Your task to perform on an android device: Open ESPN.com Image 0: 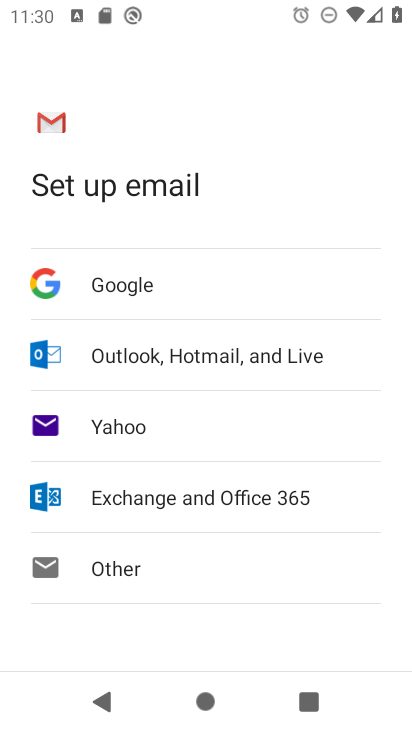
Step 0: press home button
Your task to perform on an android device: Open ESPN.com Image 1: 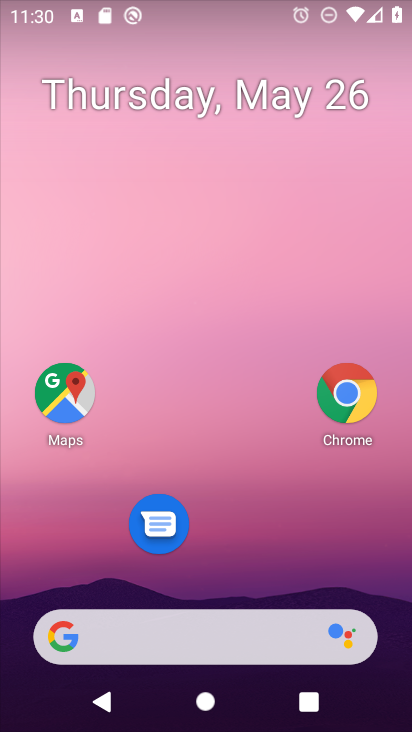
Step 1: click (258, 644)
Your task to perform on an android device: Open ESPN.com Image 2: 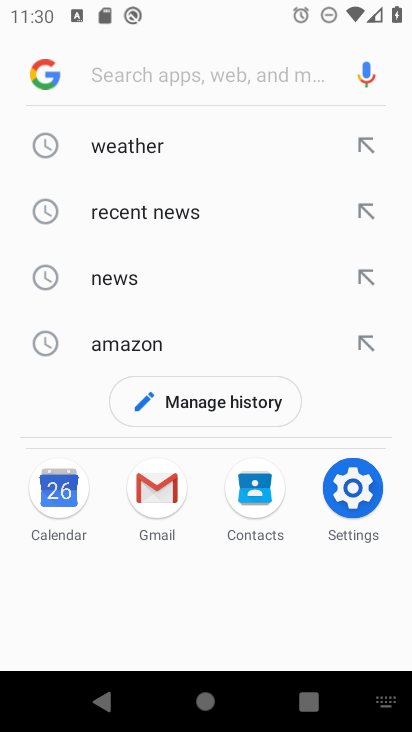
Step 2: type "espn.com"
Your task to perform on an android device: Open ESPN.com Image 3: 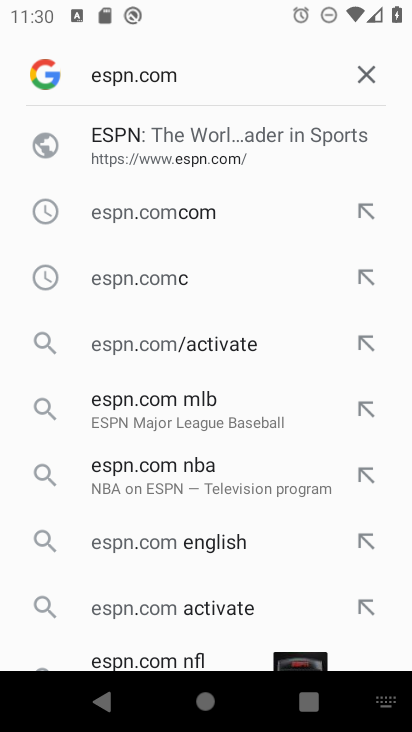
Step 3: click (175, 141)
Your task to perform on an android device: Open ESPN.com Image 4: 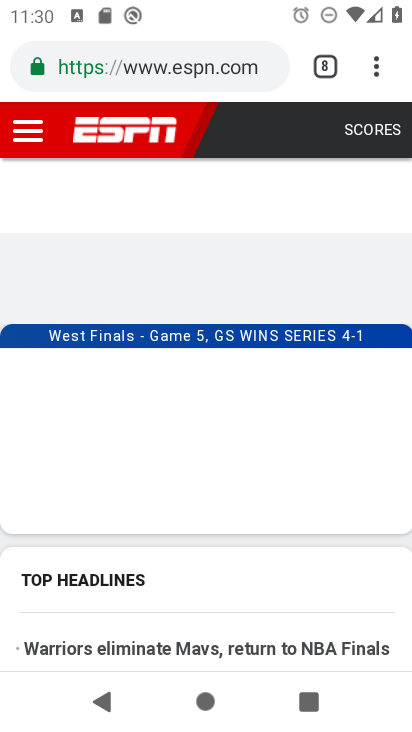
Step 4: task complete